Your task to perform on an android device: turn on notifications settings in the gmail app Image 0: 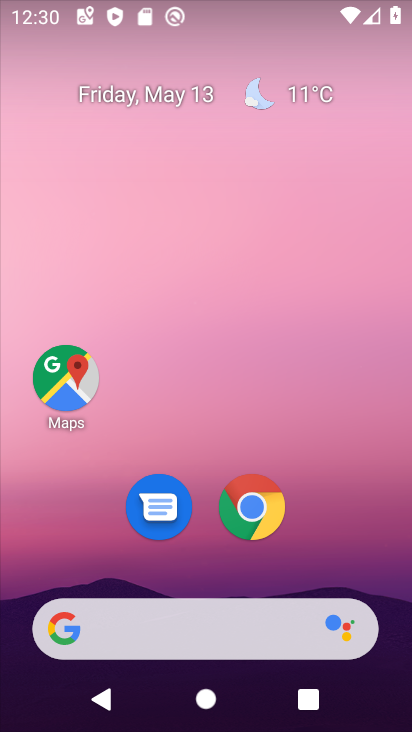
Step 0: drag from (212, 583) to (242, 36)
Your task to perform on an android device: turn on notifications settings in the gmail app Image 1: 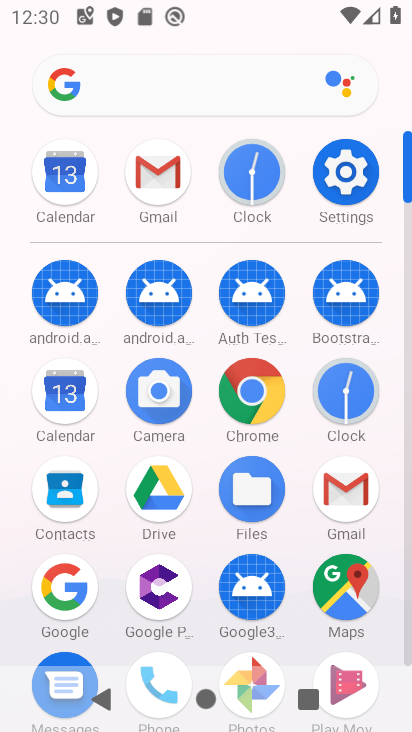
Step 1: click (367, 486)
Your task to perform on an android device: turn on notifications settings in the gmail app Image 2: 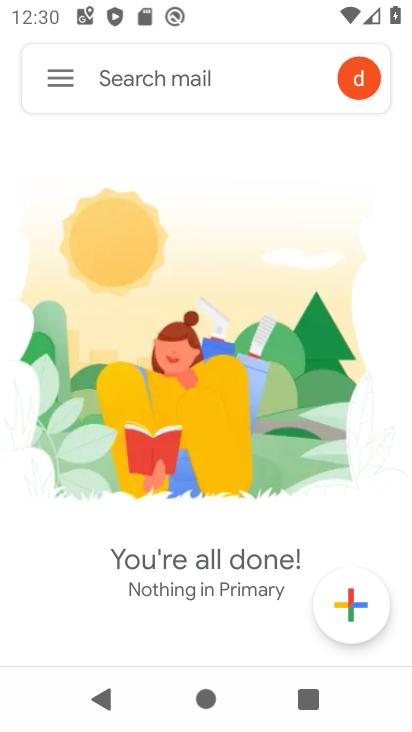
Step 2: click (59, 81)
Your task to perform on an android device: turn on notifications settings in the gmail app Image 3: 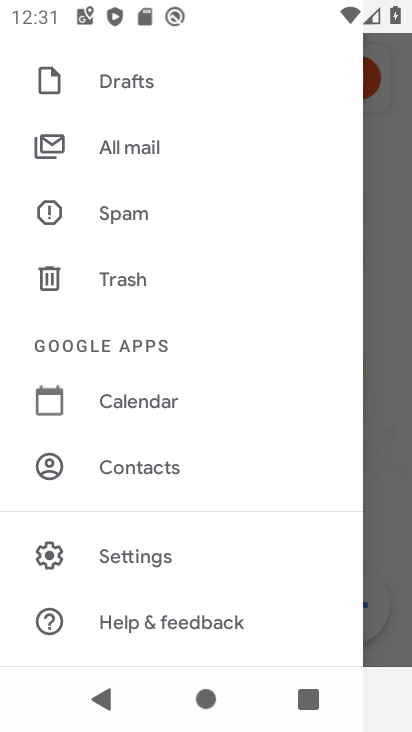
Step 3: click (114, 592)
Your task to perform on an android device: turn on notifications settings in the gmail app Image 4: 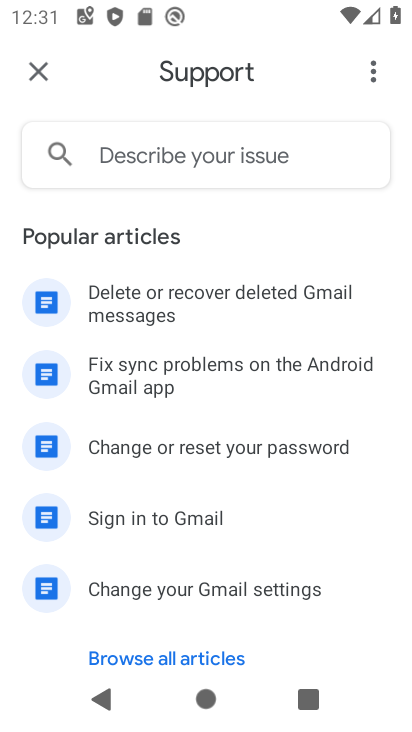
Step 4: click (45, 54)
Your task to perform on an android device: turn on notifications settings in the gmail app Image 5: 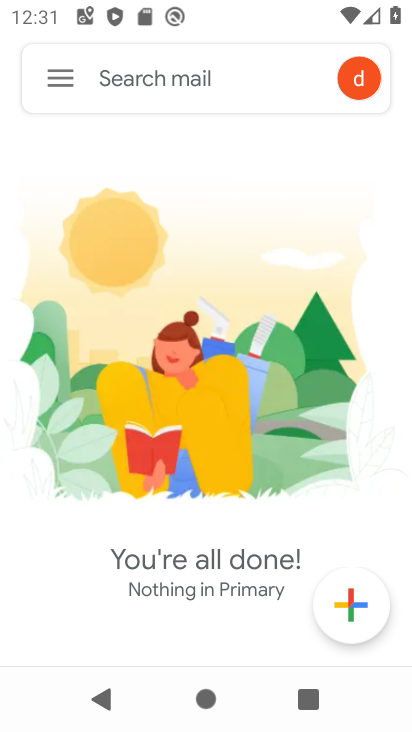
Step 5: click (46, 73)
Your task to perform on an android device: turn on notifications settings in the gmail app Image 6: 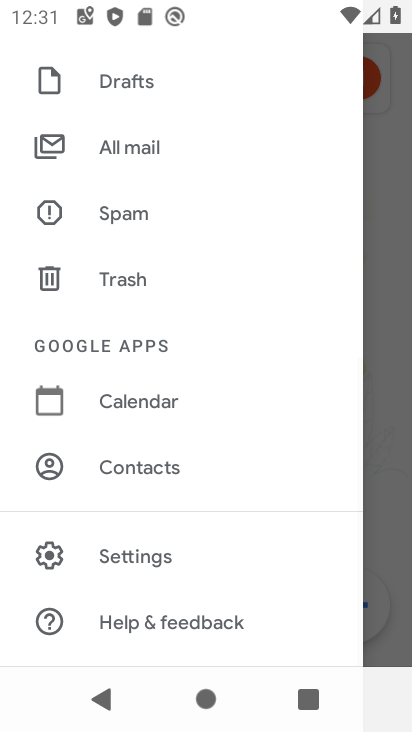
Step 6: click (107, 545)
Your task to perform on an android device: turn on notifications settings in the gmail app Image 7: 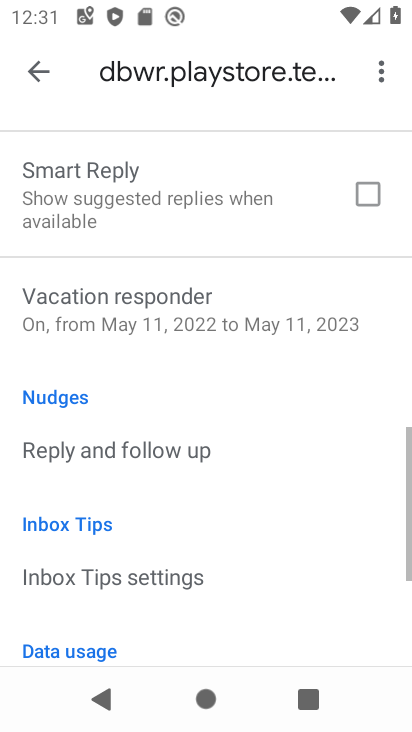
Step 7: drag from (160, 528) to (52, 0)
Your task to perform on an android device: turn on notifications settings in the gmail app Image 8: 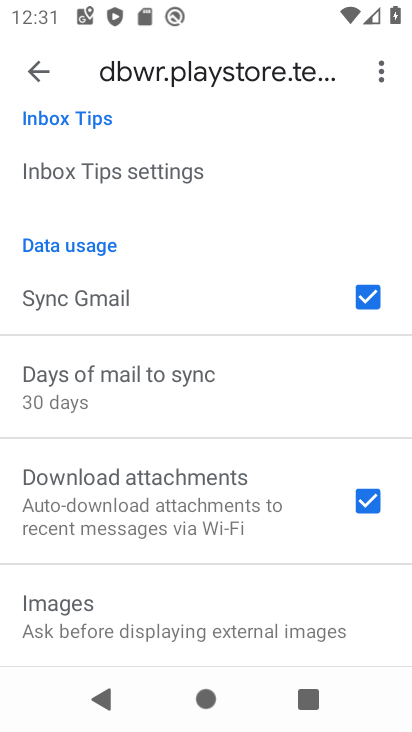
Step 8: click (33, 72)
Your task to perform on an android device: turn on notifications settings in the gmail app Image 9: 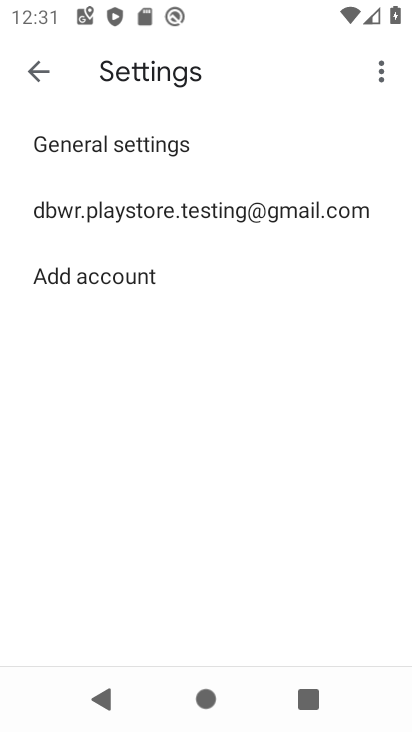
Step 9: click (58, 132)
Your task to perform on an android device: turn on notifications settings in the gmail app Image 10: 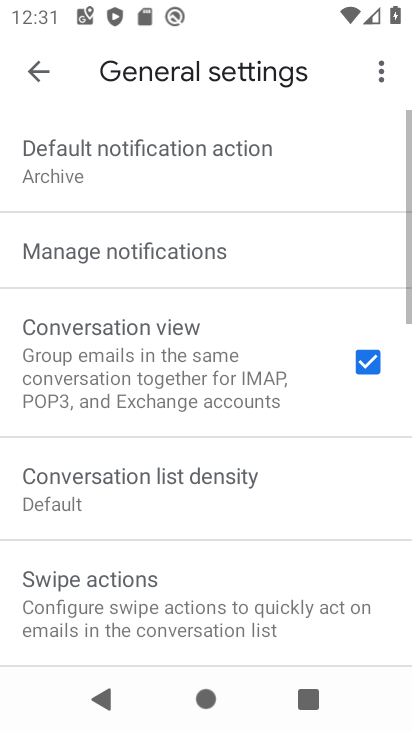
Step 10: click (132, 242)
Your task to perform on an android device: turn on notifications settings in the gmail app Image 11: 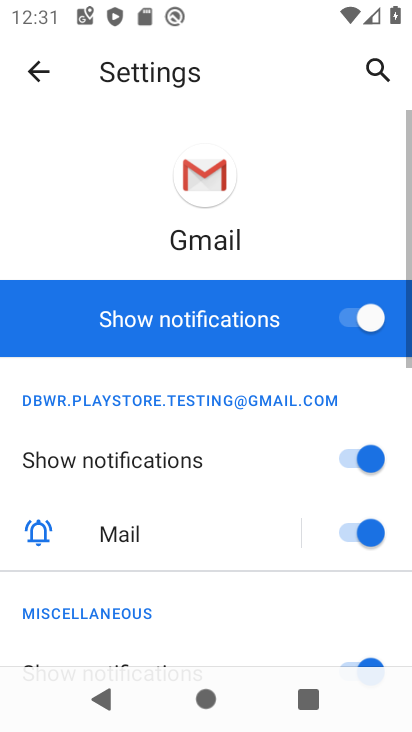
Step 11: click (346, 295)
Your task to perform on an android device: turn on notifications settings in the gmail app Image 12: 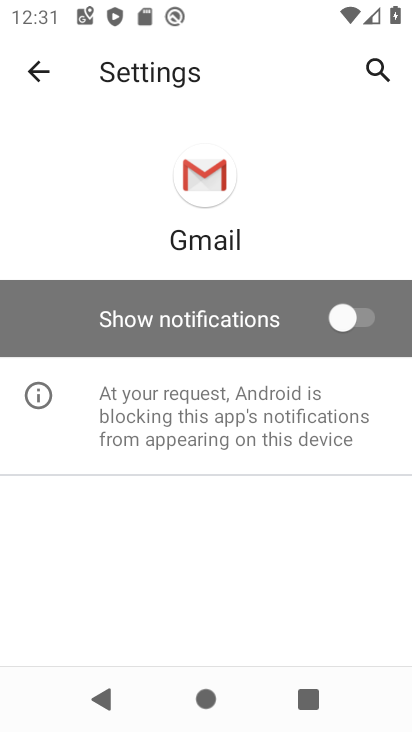
Step 12: task complete